Your task to perform on an android device: delete browsing data in the chrome app Image 0: 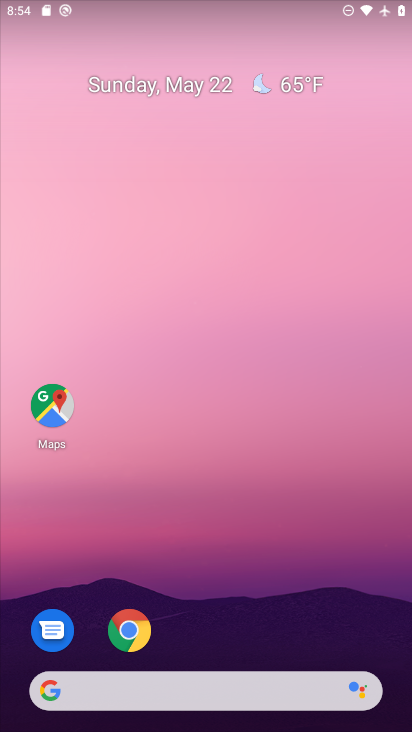
Step 0: click (138, 633)
Your task to perform on an android device: delete browsing data in the chrome app Image 1: 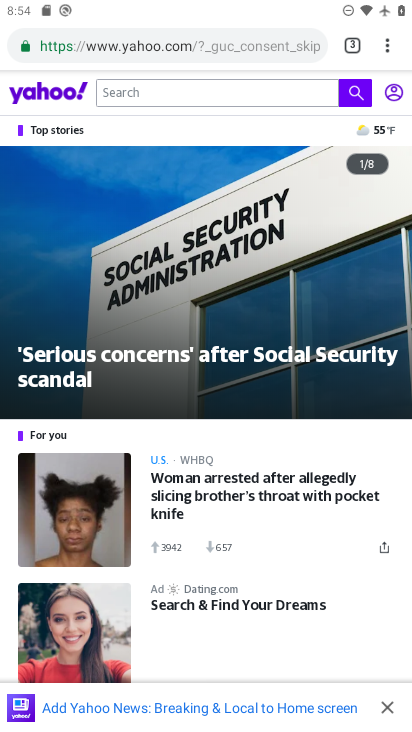
Step 1: drag from (387, 52) to (260, 553)
Your task to perform on an android device: delete browsing data in the chrome app Image 2: 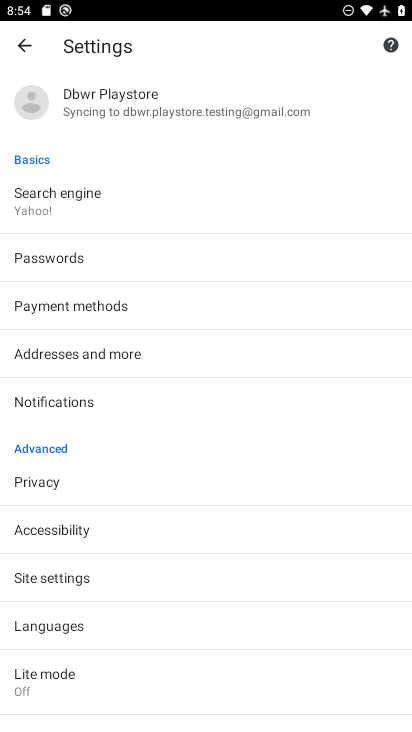
Step 2: click (56, 492)
Your task to perform on an android device: delete browsing data in the chrome app Image 3: 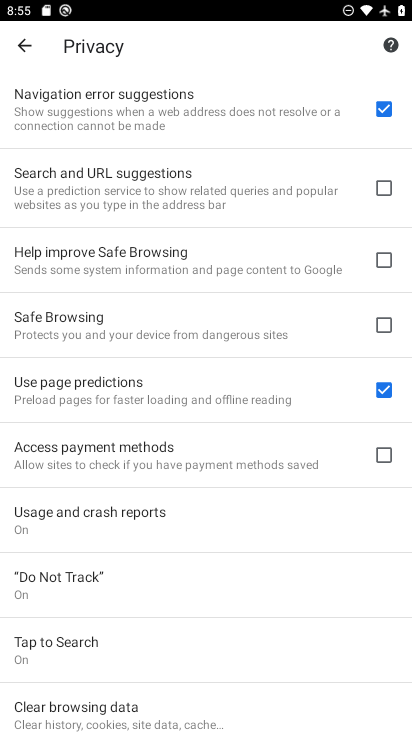
Step 3: drag from (166, 652) to (333, 208)
Your task to perform on an android device: delete browsing data in the chrome app Image 4: 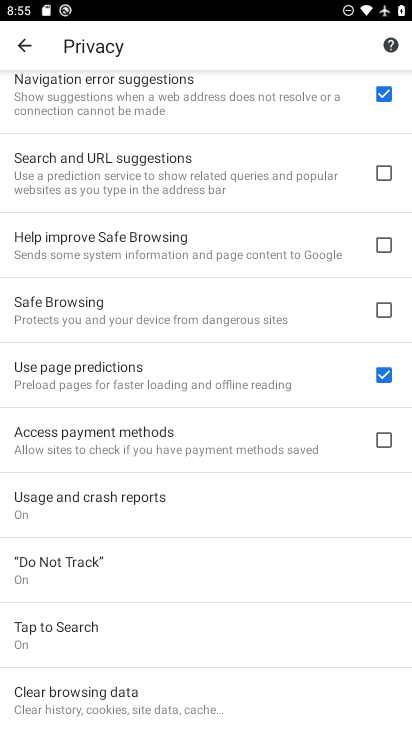
Step 4: click (130, 703)
Your task to perform on an android device: delete browsing data in the chrome app Image 5: 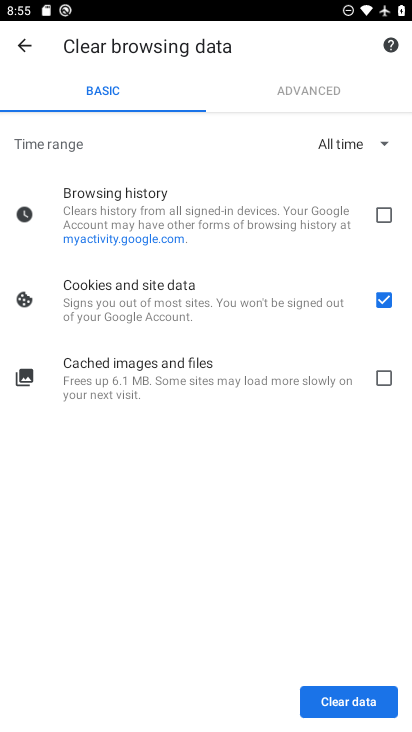
Step 5: click (380, 207)
Your task to perform on an android device: delete browsing data in the chrome app Image 6: 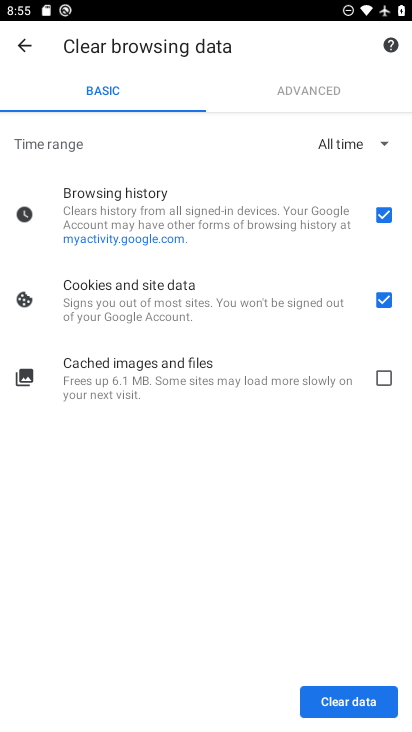
Step 6: click (381, 389)
Your task to perform on an android device: delete browsing data in the chrome app Image 7: 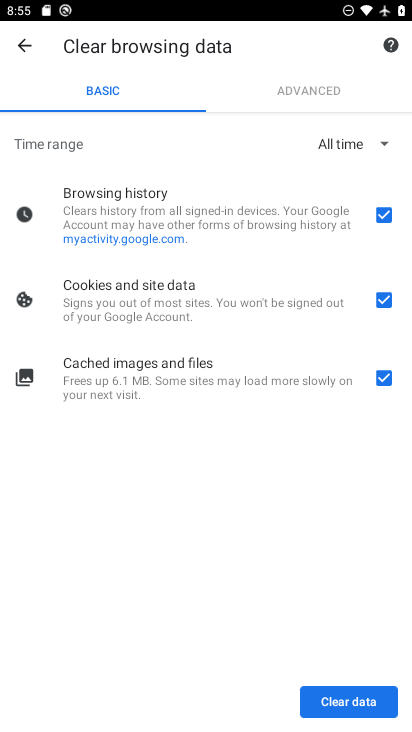
Step 7: click (338, 702)
Your task to perform on an android device: delete browsing data in the chrome app Image 8: 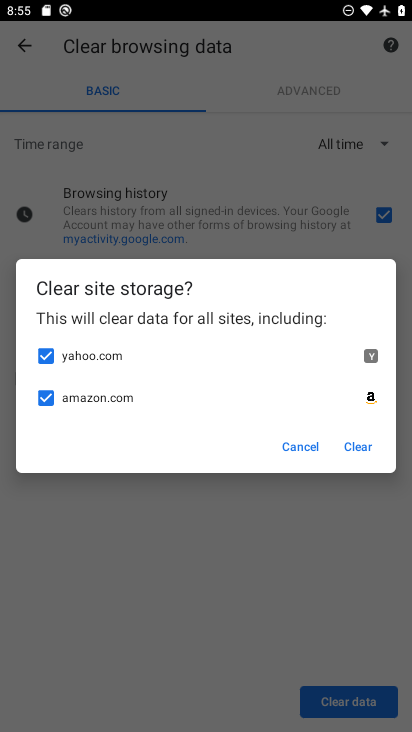
Step 8: click (347, 450)
Your task to perform on an android device: delete browsing data in the chrome app Image 9: 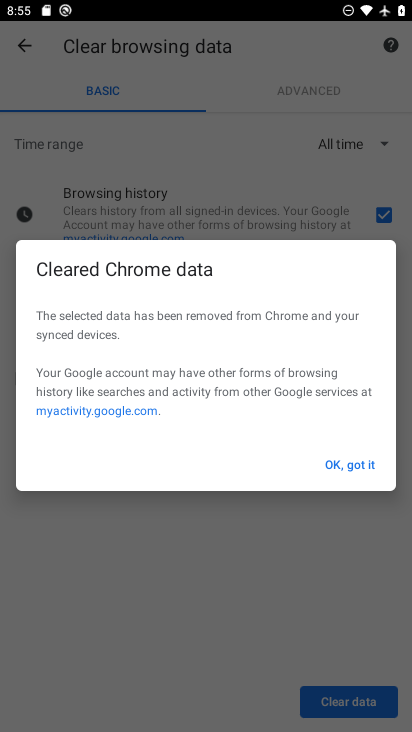
Step 9: click (357, 461)
Your task to perform on an android device: delete browsing data in the chrome app Image 10: 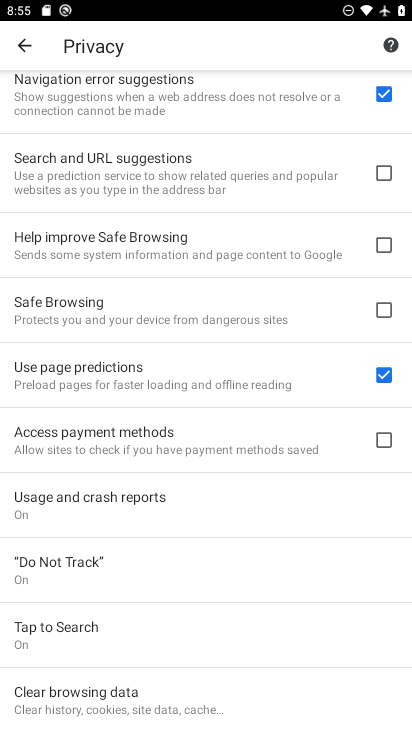
Step 10: task complete